Your task to perform on an android device: Open Amazon Image 0: 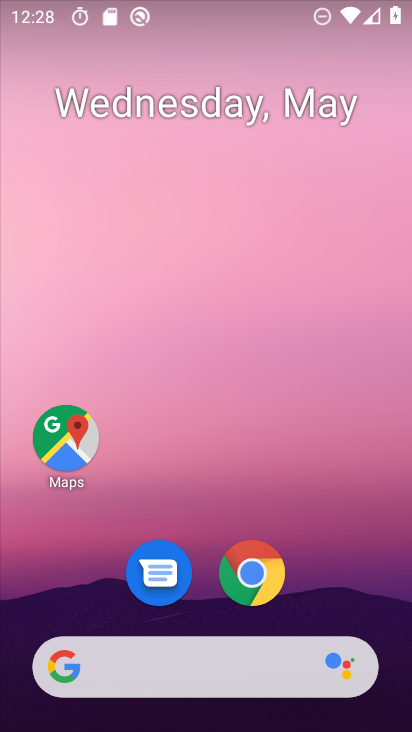
Step 0: drag from (341, 552) to (286, 56)
Your task to perform on an android device: Open Amazon Image 1: 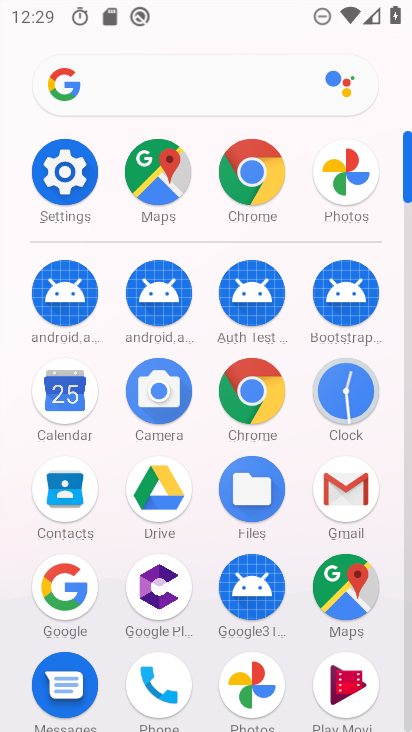
Step 1: drag from (15, 617) to (14, 240)
Your task to perform on an android device: Open Amazon Image 2: 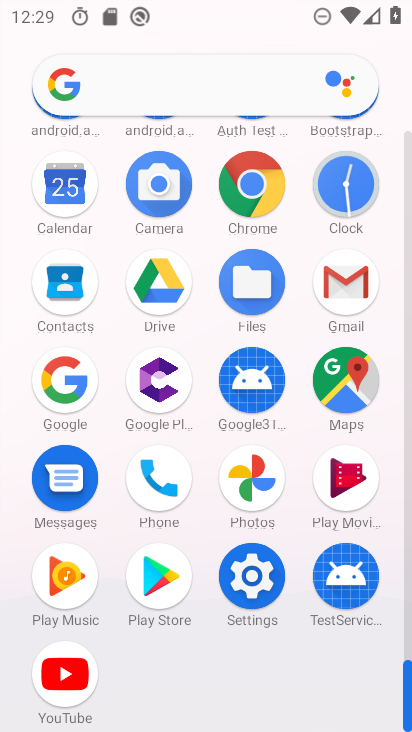
Step 2: click (247, 184)
Your task to perform on an android device: Open Amazon Image 3: 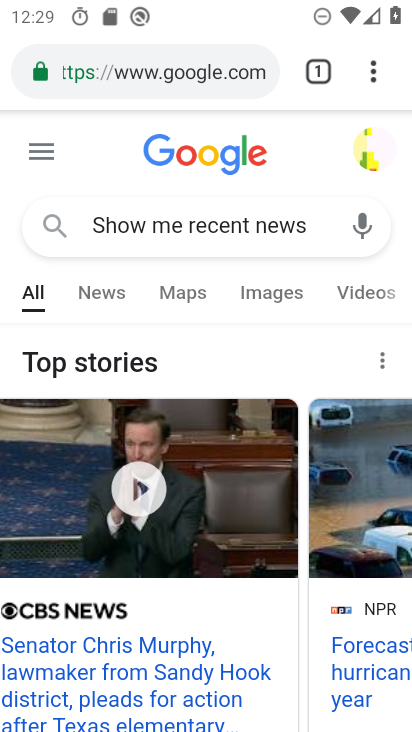
Step 3: click (135, 68)
Your task to perform on an android device: Open Amazon Image 4: 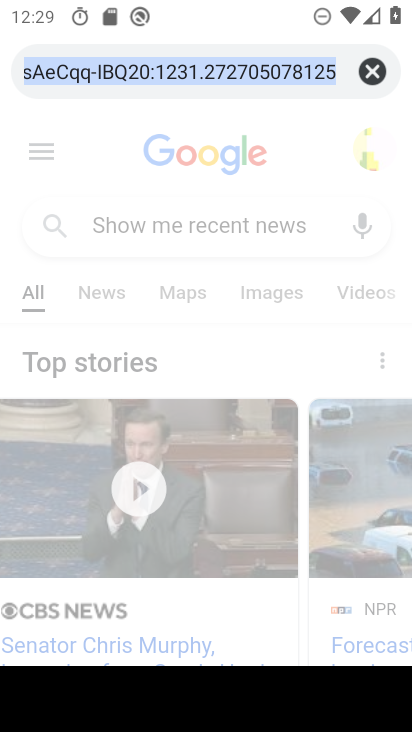
Step 4: click (360, 63)
Your task to perform on an android device: Open Amazon Image 5: 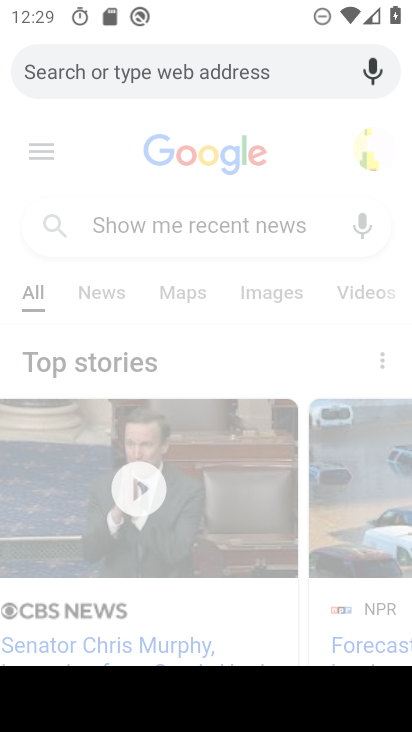
Step 5: type "Amazon"
Your task to perform on an android device: Open Amazon Image 6: 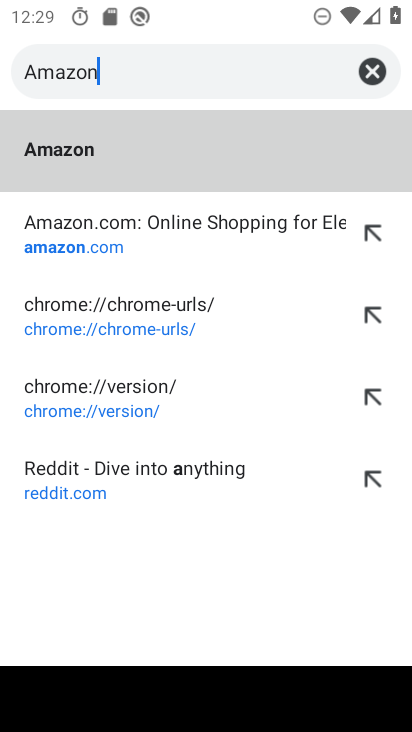
Step 6: type ""
Your task to perform on an android device: Open Amazon Image 7: 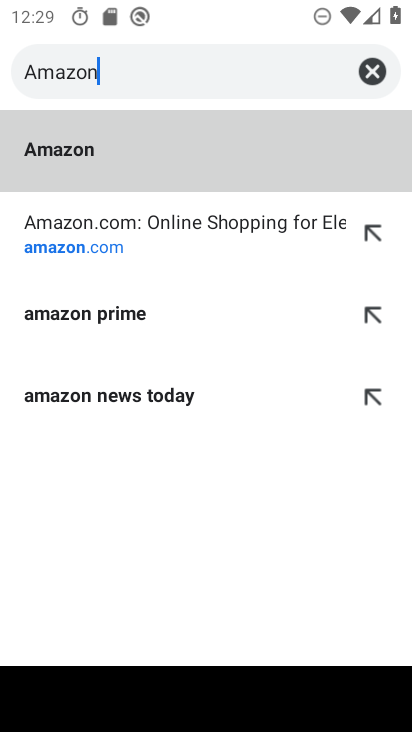
Step 7: click (112, 239)
Your task to perform on an android device: Open Amazon Image 8: 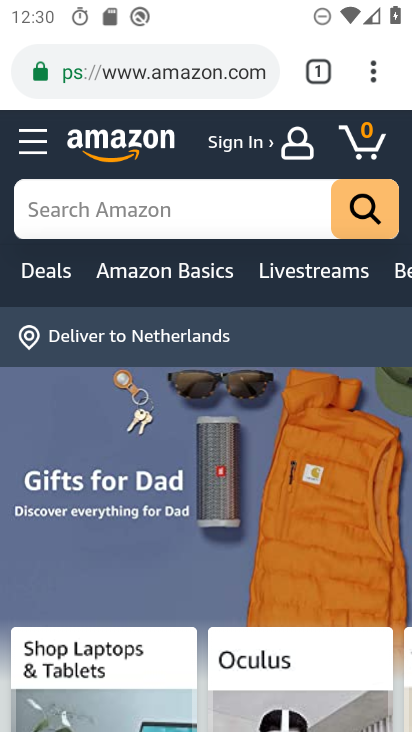
Step 8: task complete